Your task to perform on an android device: Go to settings Image 0: 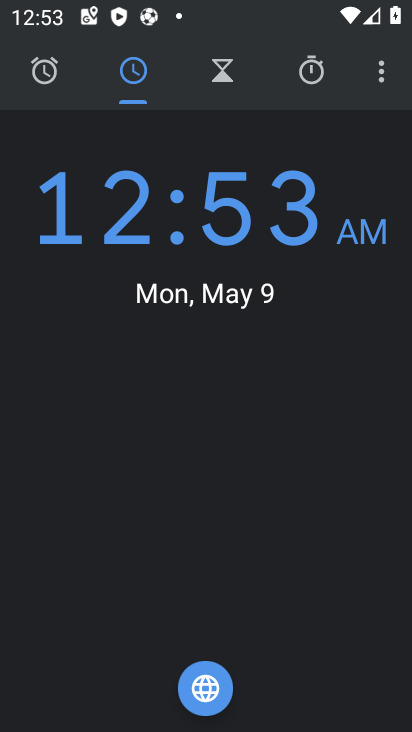
Step 0: press home button
Your task to perform on an android device: Go to settings Image 1: 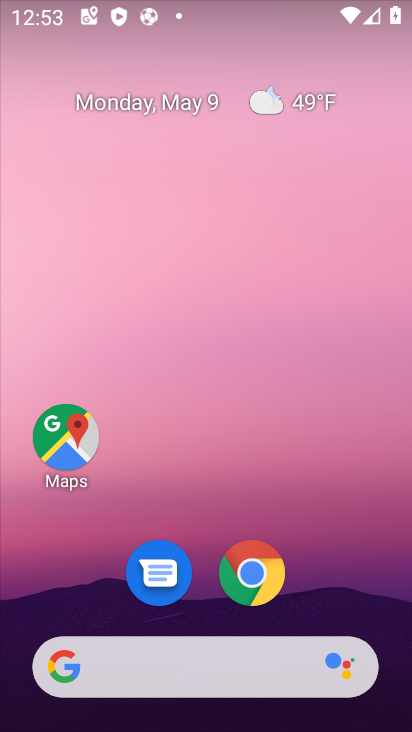
Step 1: drag from (282, 715) to (282, 34)
Your task to perform on an android device: Go to settings Image 2: 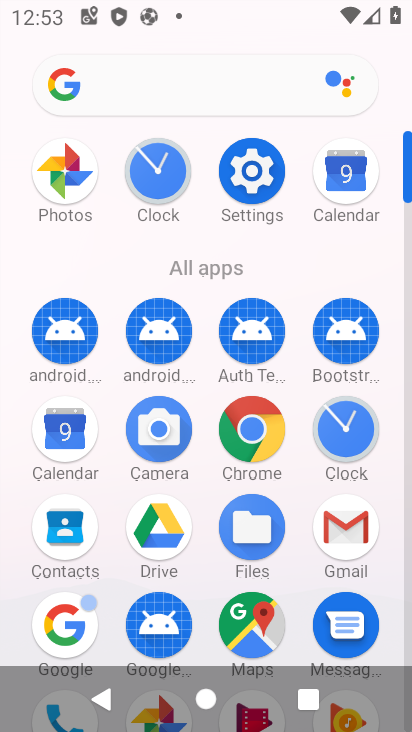
Step 2: click (240, 187)
Your task to perform on an android device: Go to settings Image 3: 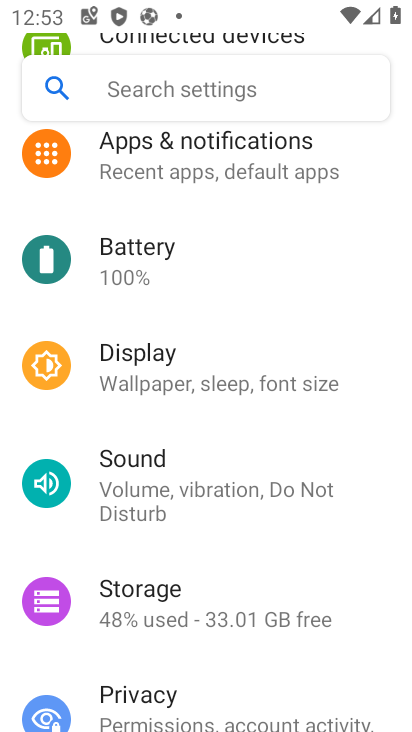
Step 3: task complete